Your task to perform on an android device: Open Google Chrome and click the shortcut for Amazon.com Image 0: 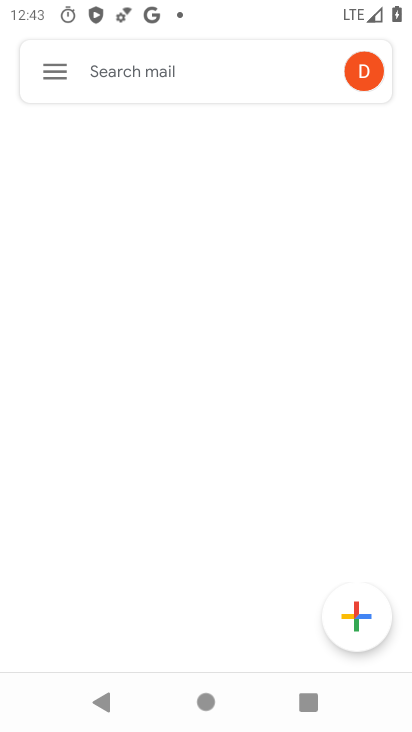
Step 0: press back button
Your task to perform on an android device: Open Google Chrome and click the shortcut for Amazon.com Image 1: 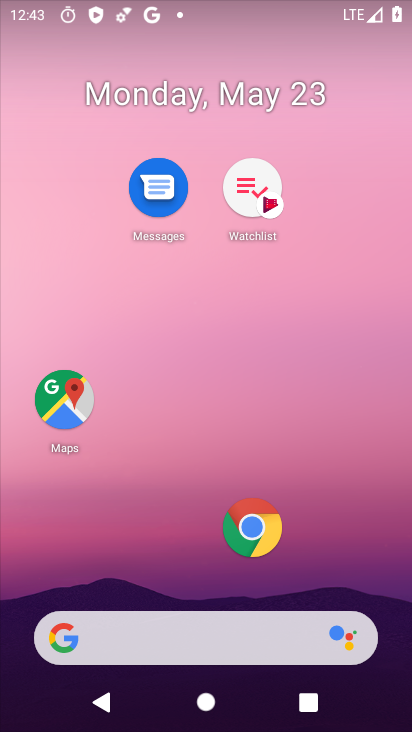
Step 1: drag from (255, 705) to (233, 0)
Your task to perform on an android device: Open Google Chrome and click the shortcut for Amazon.com Image 2: 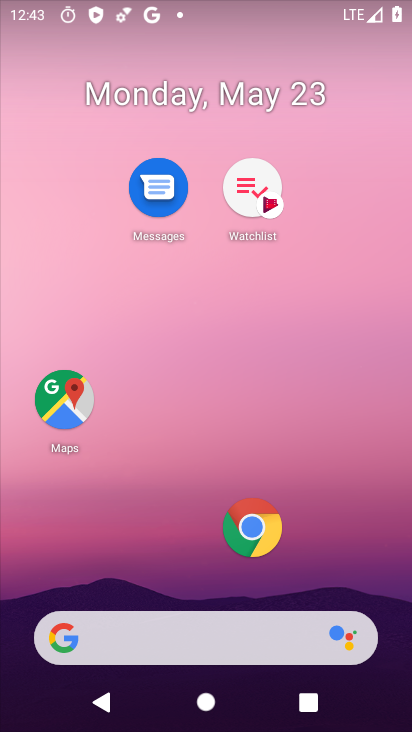
Step 2: drag from (198, 454) to (295, 98)
Your task to perform on an android device: Open Google Chrome and click the shortcut for Amazon.com Image 3: 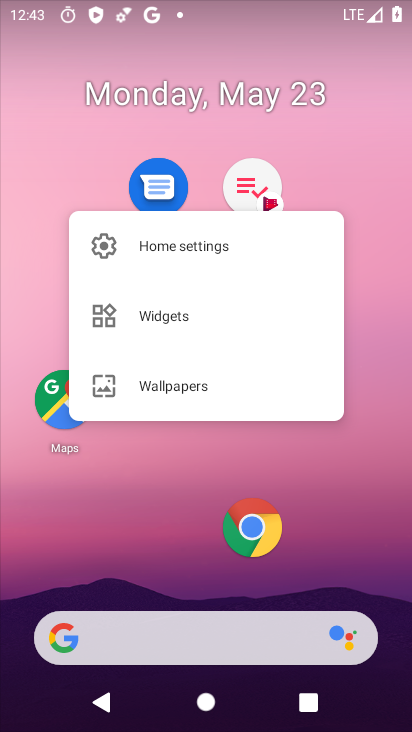
Step 3: click (237, 86)
Your task to perform on an android device: Open Google Chrome and click the shortcut for Amazon.com Image 4: 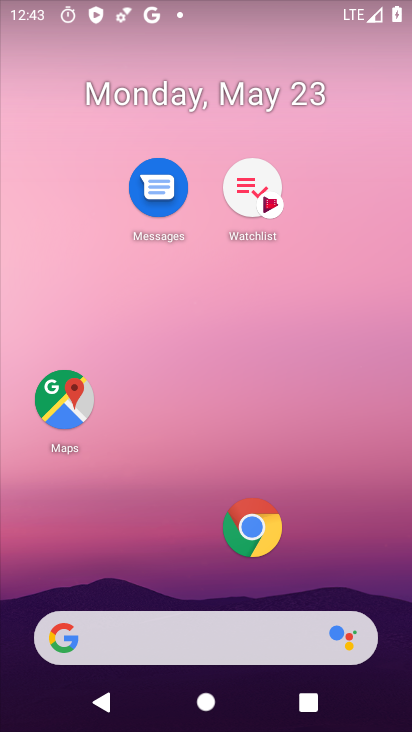
Step 4: drag from (243, 226) to (159, 185)
Your task to perform on an android device: Open Google Chrome and click the shortcut for Amazon.com Image 5: 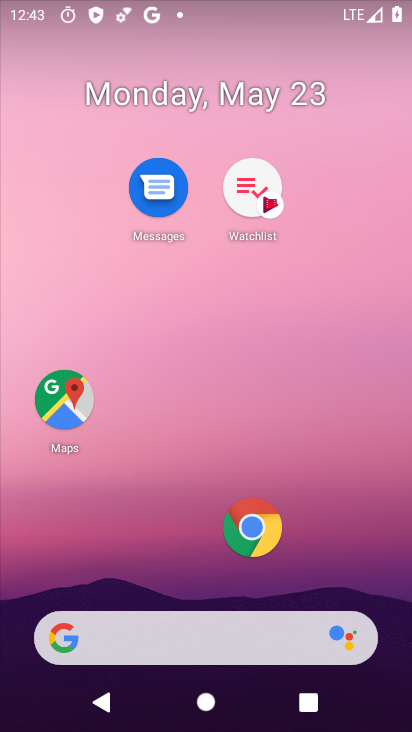
Step 5: drag from (153, 17) to (33, 174)
Your task to perform on an android device: Open Google Chrome and click the shortcut for Amazon.com Image 6: 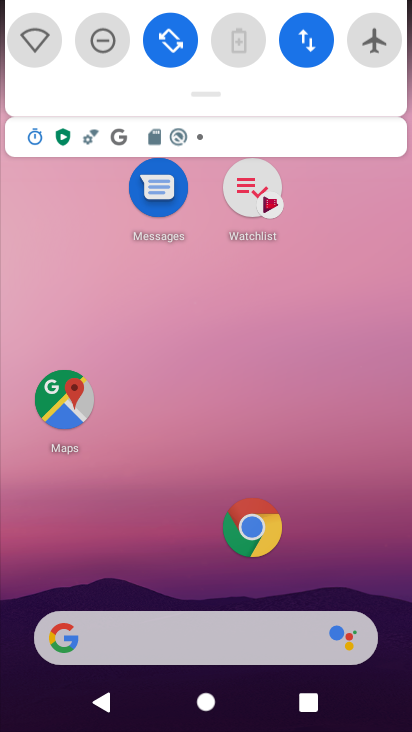
Step 6: drag from (173, 565) to (94, 4)
Your task to perform on an android device: Open Google Chrome and click the shortcut for Amazon.com Image 7: 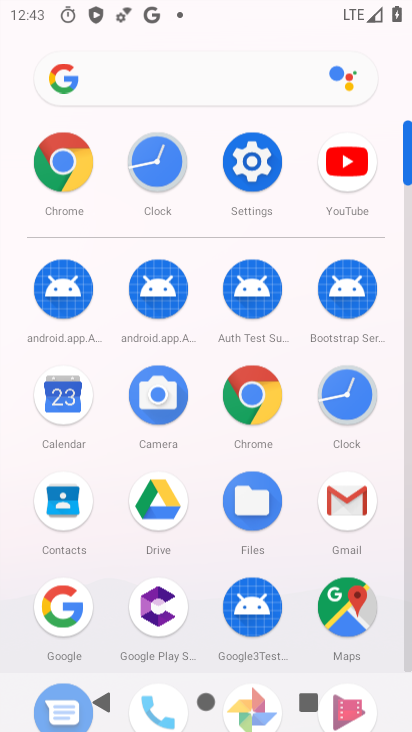
Step 7: drag from (143, 393) to (120, 266)
Your task to perform on an android device: Open Google Chrome and click the shortcut for Amazon.com Image 8: 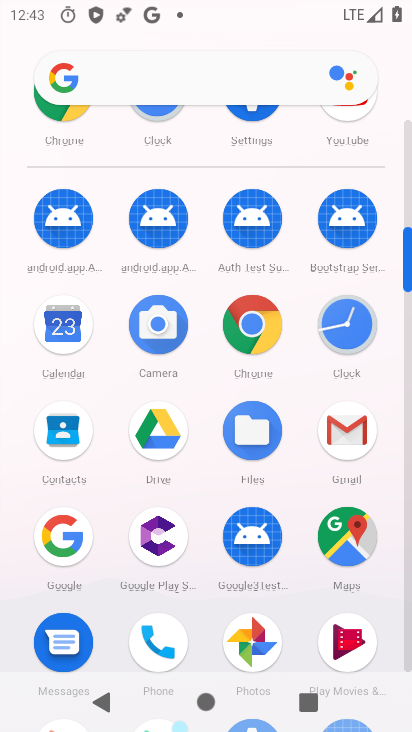
Step 8: click (249, 323)
Your task to perform on an android device: Open Google Chrome and click the shortcut for Amazon.com Image 9: 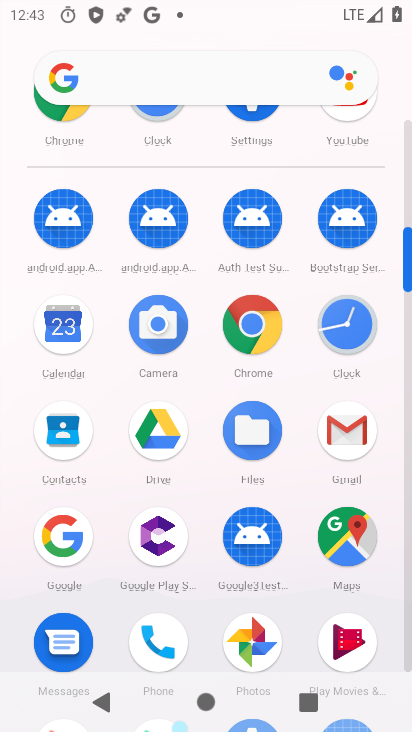
Step 9: click (250, 324)
Your task to perform on an android device: Open Google Chrome and click the shortcut for Amazon.com Image 10: 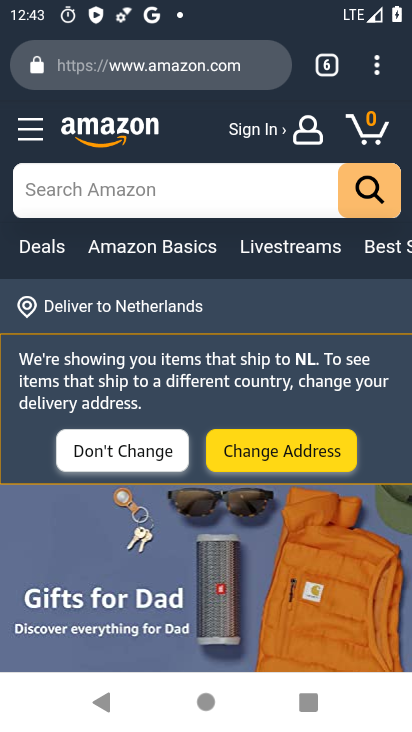
Step 10: drag from (379, 63) to (126, 128)
Your task to perform on an android device: Open Google Chrome and click the shortcut for Amazon.com Image 11: 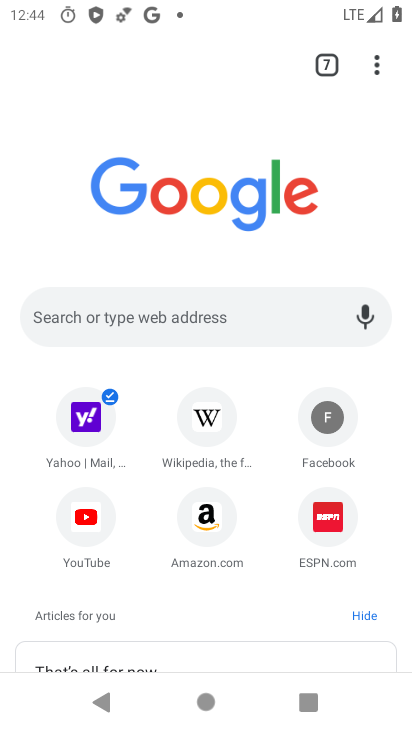
Step 11: click (222, 525)
Your task to perform on an android device: Open Google Chrome and click the shortcut for Amazon.com Image 12: 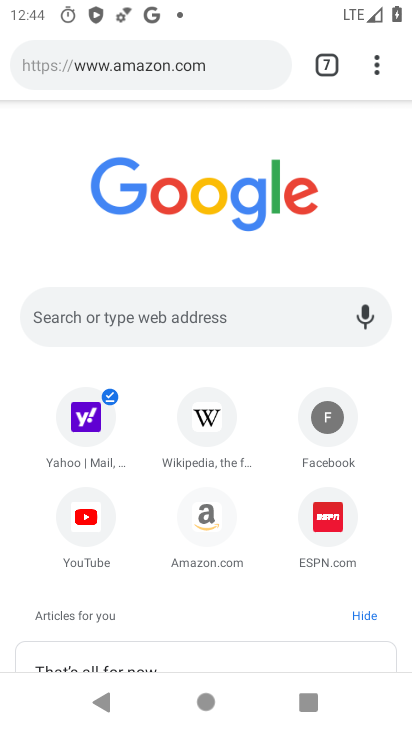
Step 12: click (216, 522)
Your task to perform on an android device: Open Google Chrome and click the shortcut for Amazon.com Image 13: 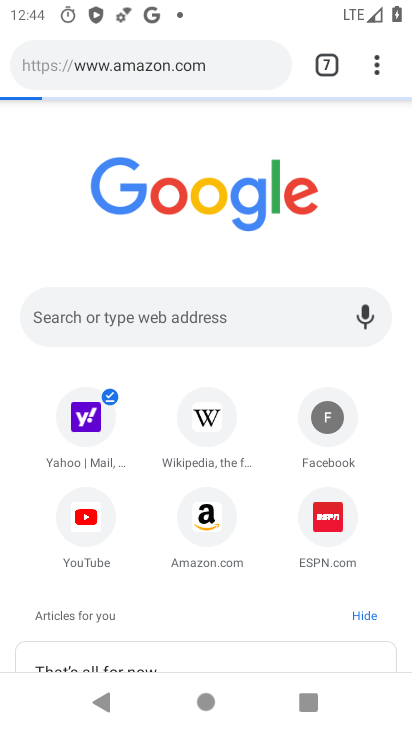
Step 13: click (216, 517)
Your task to perform on an android device: Open Google Chrome and click the shortcut for Amazon.com Image 14: 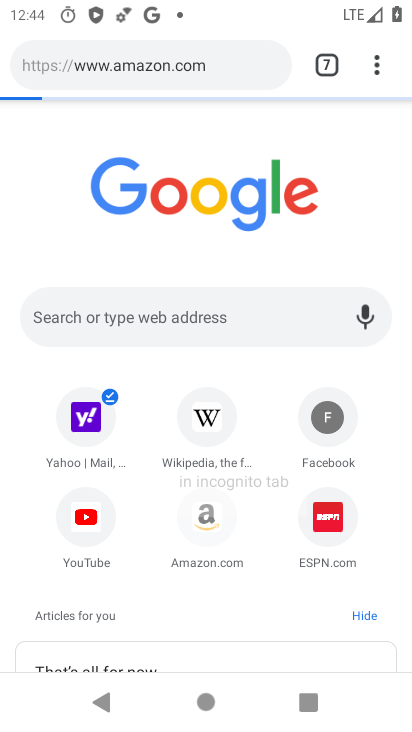
Step 14: click (217, 516)
Your task to perform on an android device: Open Google Chrome and click the shortcut for Amazon.com Image 15: 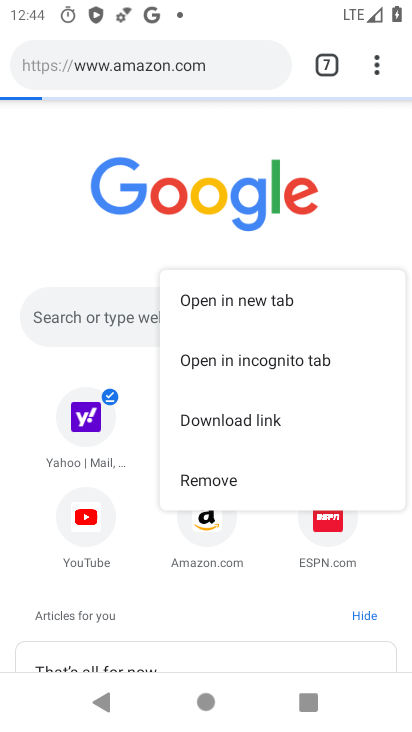
Step 15: click (217, 516)
Your task to perform on an android device: Open Google Chrome and click the shortcut for Amazon.com Image 16: 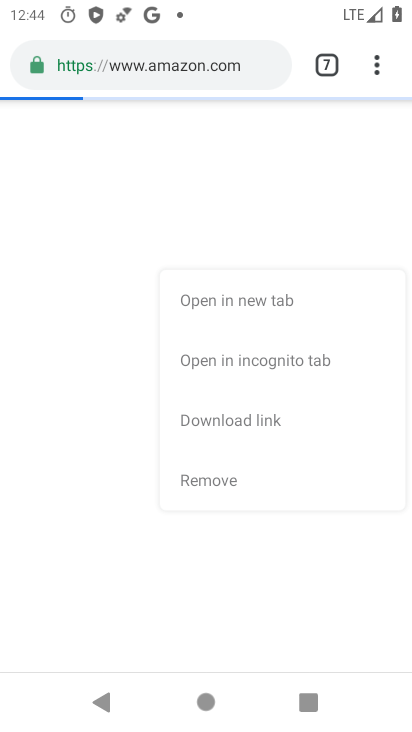
Step 16: click (218, 513)
Your task to perform on an android device: Open Google Chrome and click the shortcut for Amazon.com Image 17: 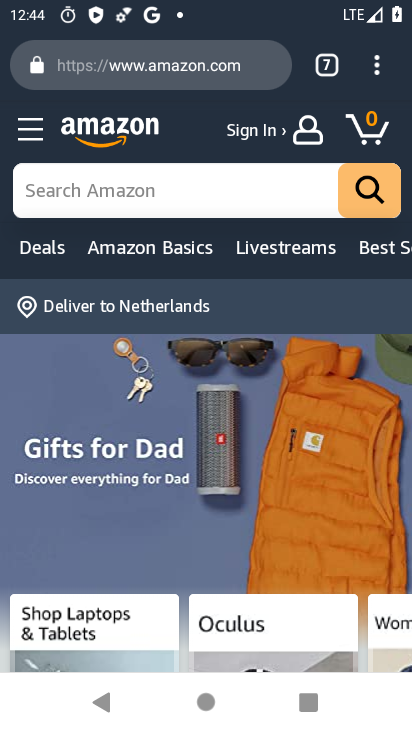
Step 17: task complete